Your task to perform on an android device: change notification settings in the gmail app Image 0: 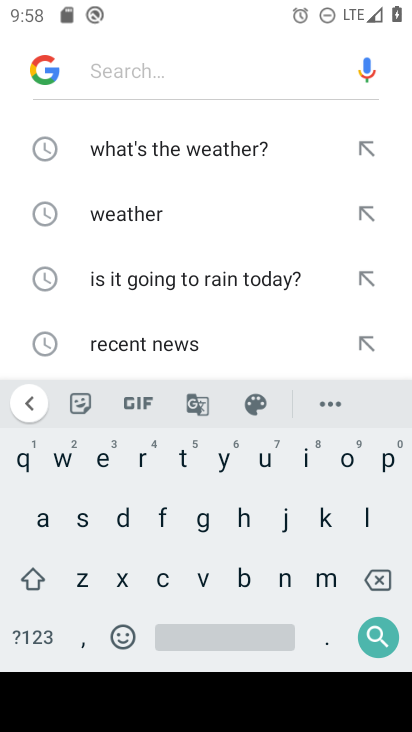
Step 0: press home button
Your task to perform on an android device: change notification settings in the gmail app Image 1: 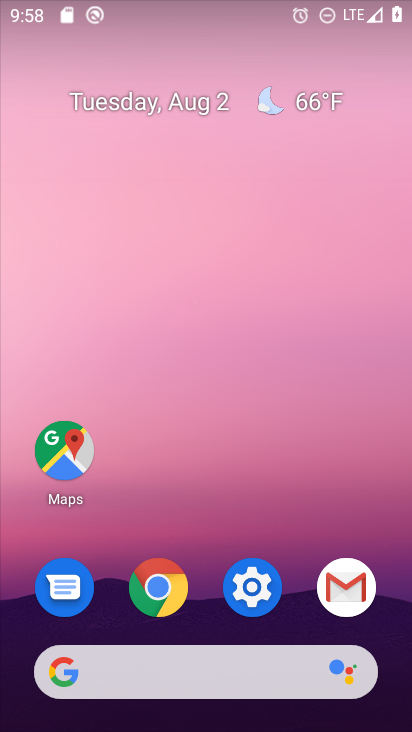
Step 1: click (346, 597)
Your task to perform on an android device: change notification settings in the gmail app Image 2: 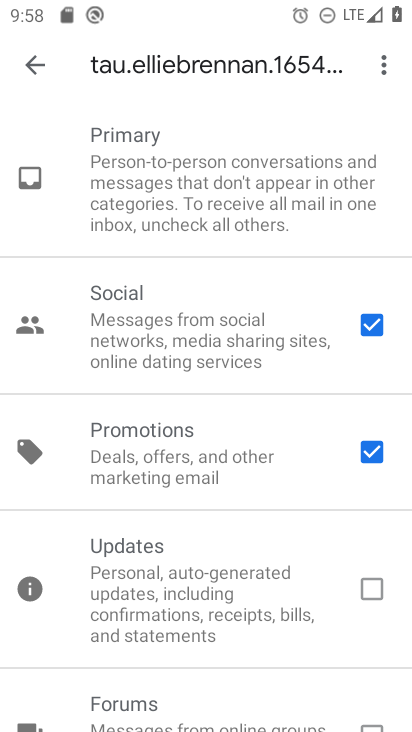
Step 2: click (40, 78)
Your task to perform on an android device: change notification settings in the gmail app Image 3: 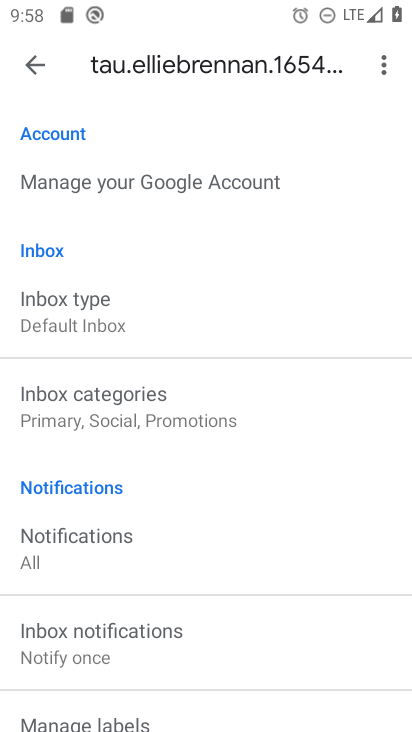
Step 3: click (81, 537)
Your task to perform on an android device: change notification settings in the gmail app Image 4: 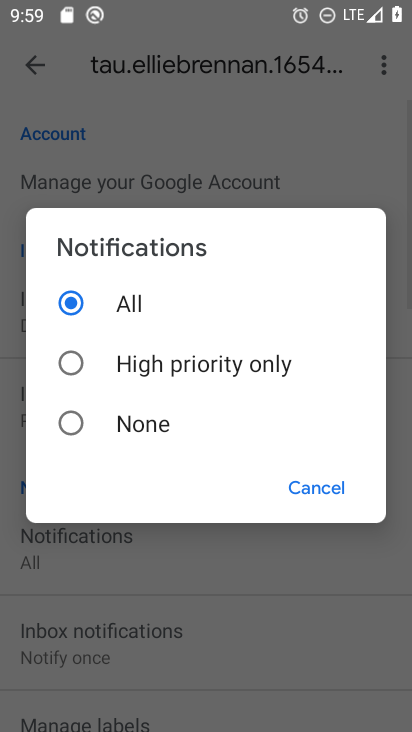
Step 4: click (123, 426)
Your task to perform on an android device: change notification settings in the gmail app Image 5: 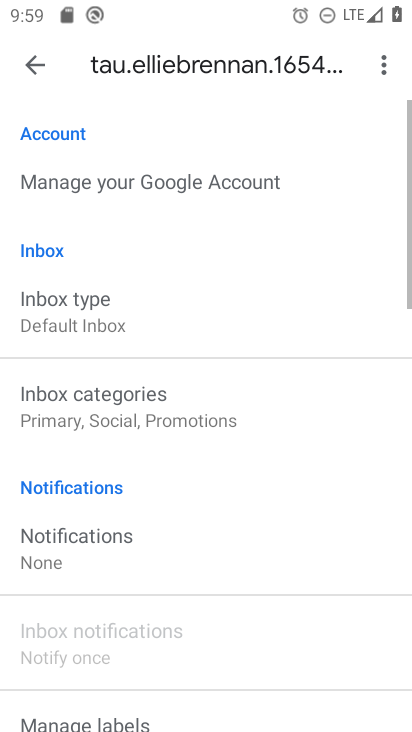
Step 5: click (92, 563)
Your task to perform on an android device: change notification settings in the gmail app Image 6: 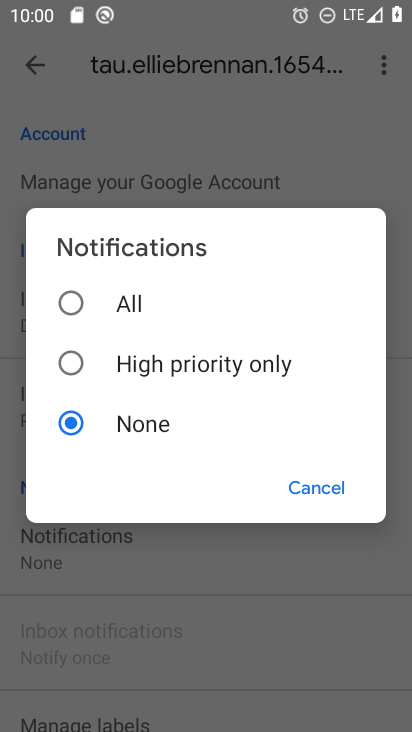
Step 6: task complete